Your task to perform on an android device: find photos in the google photos app Image 0: 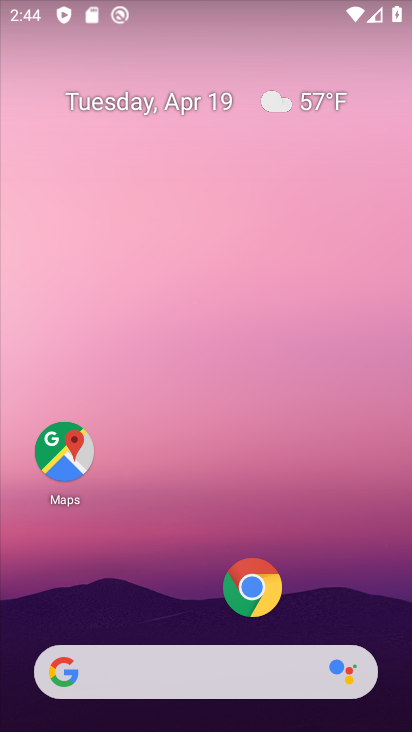
Step 0: drag from (177, 565) to (207, 44)
Your task to perform on an android device: find photos in the google photos app Image 1: 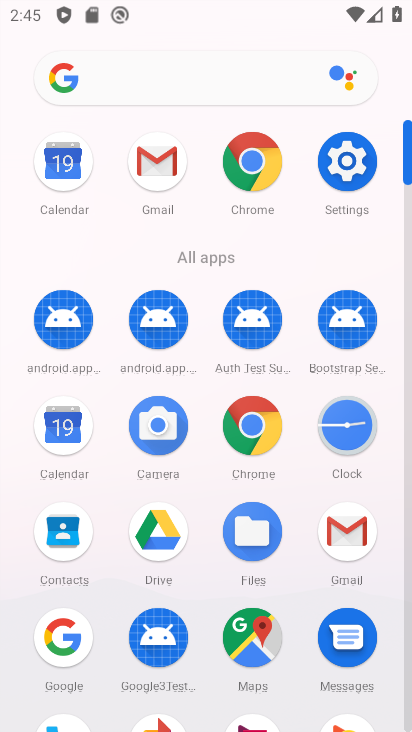
Step 1: drag from (204, 574) to (247, 265)
Your task to perform on an android device: find photos in the google photos app Image 2: 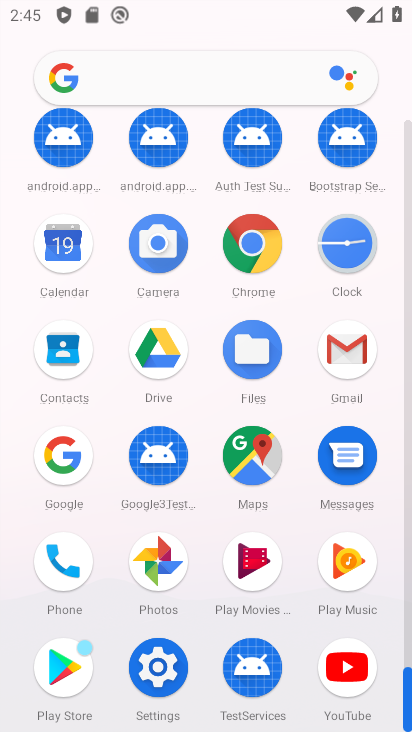
Step 2: click (154, 573)
Your task to perform on an android device: find photos in the google photos app Image 3: 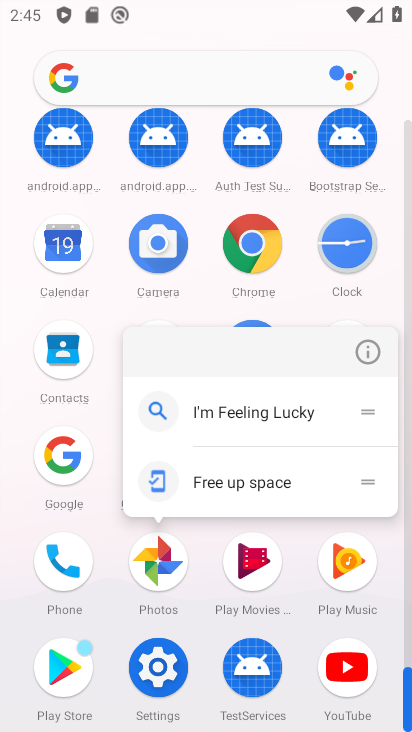
Step 3: click (155, 571)
Your task to perform on an android device: find photos in the google photos app Image 4: 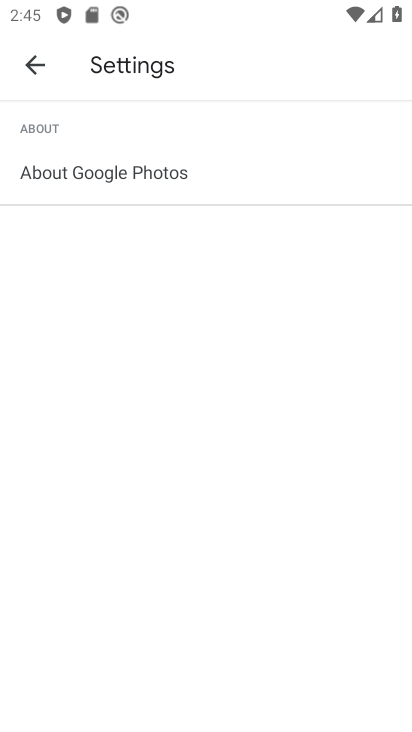
Step 4: click (37, 63)
Your task to perform on an android device: find photos in the google photos app Image 5: 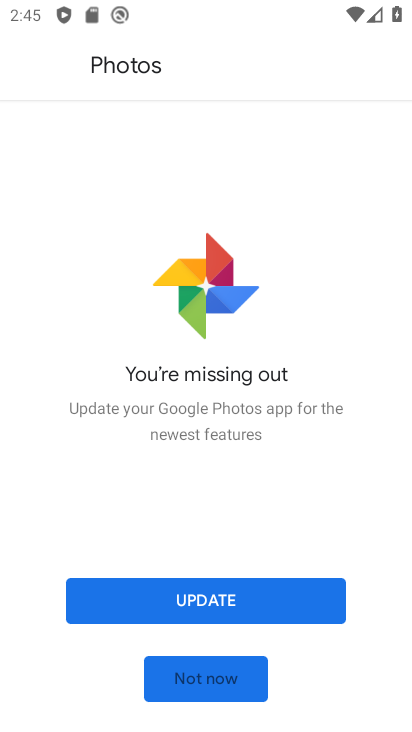
Step 5: click (204, 673)
Your task to perform on an android device: find photos in the google photos app Image 6: 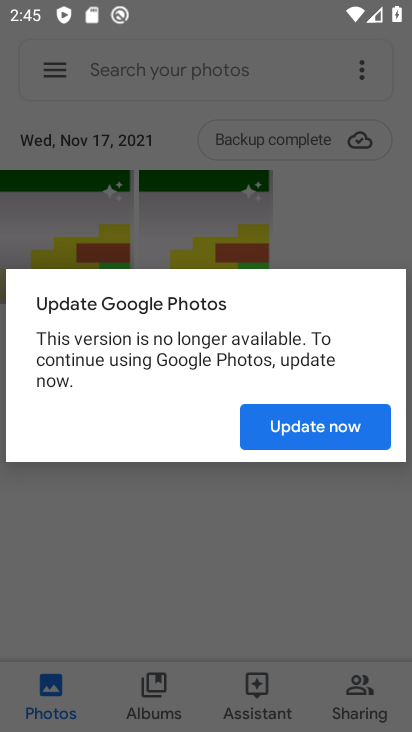
Step 6: click (334, 425)
Your task to perform on an android device: find photos in the google photos app Image 7: 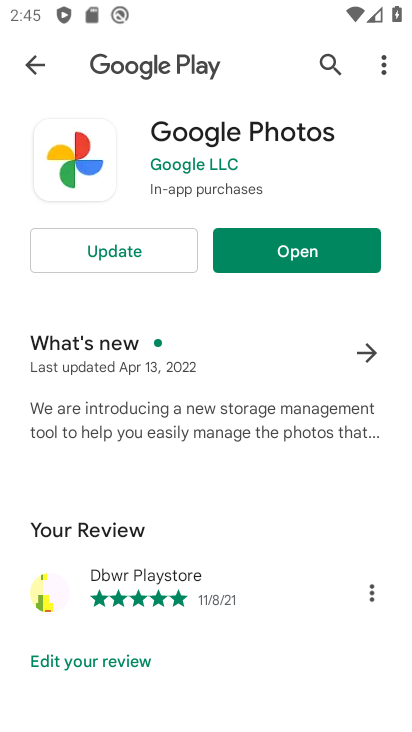
Step 7: click (273, 256)
Your task to perform on an android device: find photos in the google photos app Image 8: 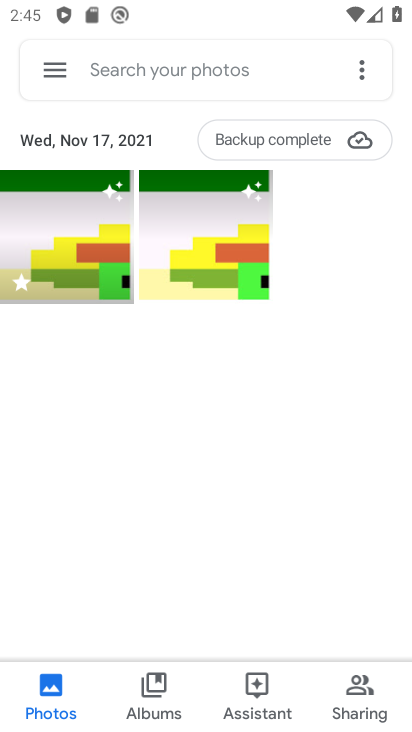
Step 8: task complete